Your task to perform on an android device: Search for sushi restaurants on Maps Image 0: 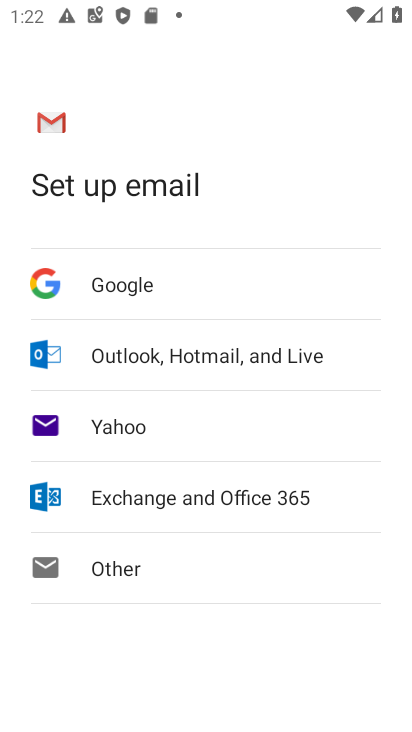
Step 0: press home button
Your task to perform on an android device: Search for sushi restaurants on Maps Image 1: 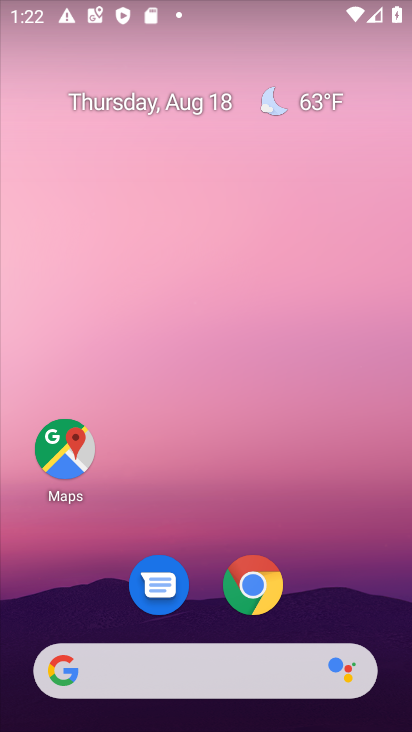
Step 1: click (56, 453)
Your task to perform on an android device: Search for sushi restaurants on Maps Image 2: 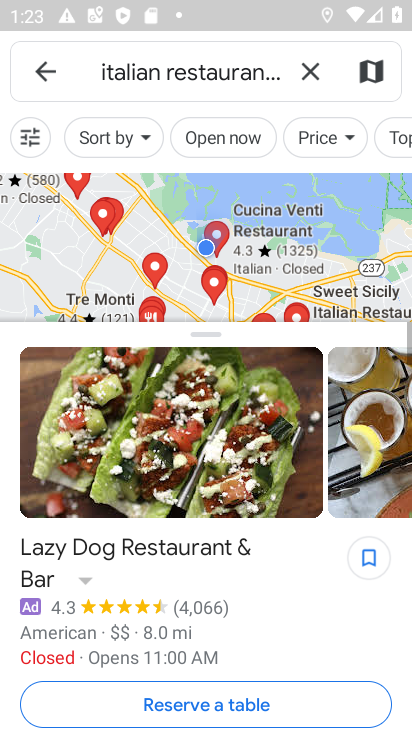
Step 2: click (45, 65)
Your task to perform on an android device: Search for sushi restaurants on Maps Image 3: 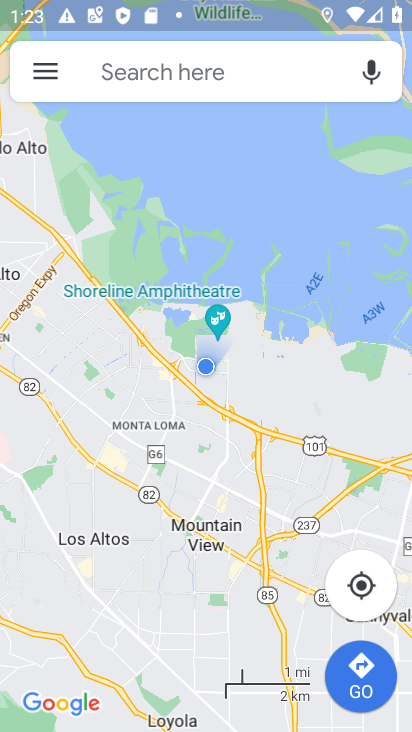
Step 3: click (162, 66)
Your task to perform on an android device: Search for sushi restaurants on Maps Image 4: 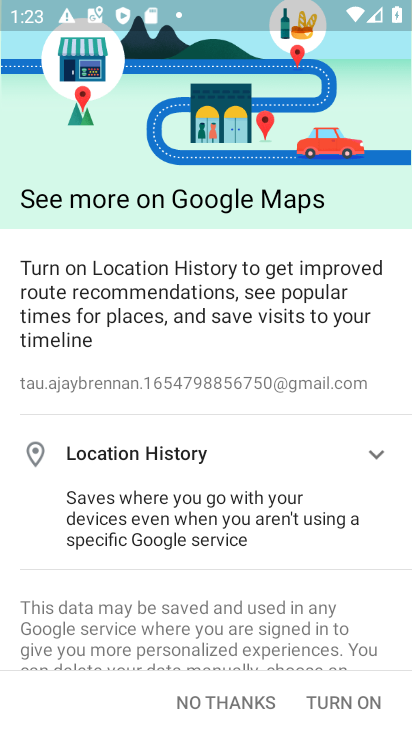
Step 4: click (335, 697)
Your task to perform on an android device: Search for sushi restaurants on Maps Image 5: 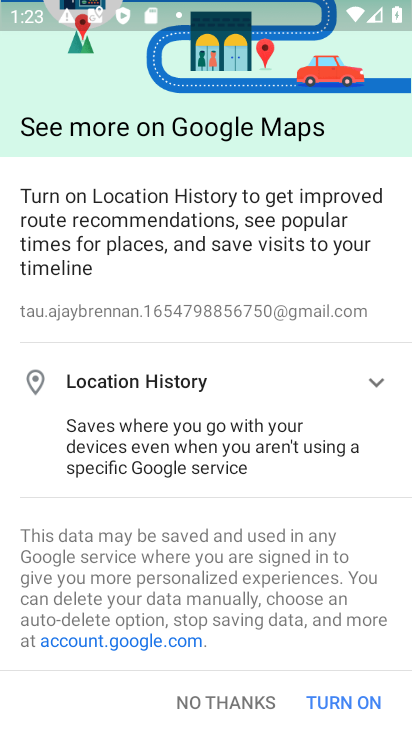
Step 5: click (337, 695)
Your task to perform on an android device: Search for sushi restaurants on Maps Image 6: 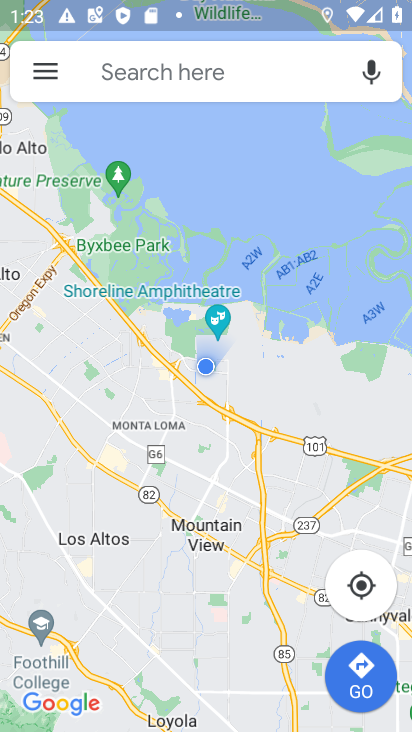
Step 6: click (173, 64)
Your task to perform on an android device: Search for sushi restaurants on Maps Image 7: 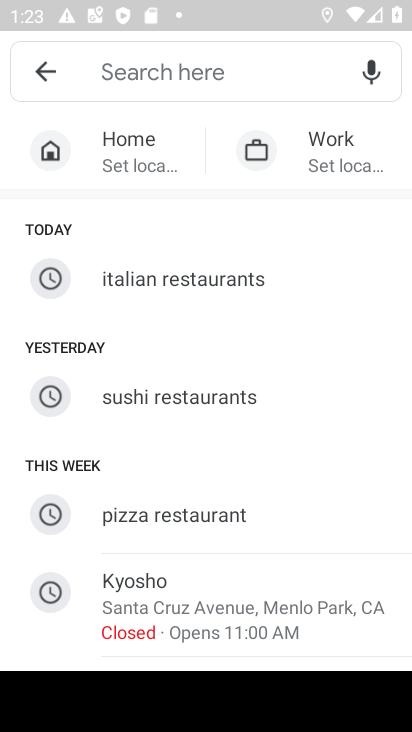
Step 7: click (199, 397)
Your task to perform on an android device: Search for sushi restaurants on Maps Image 8: 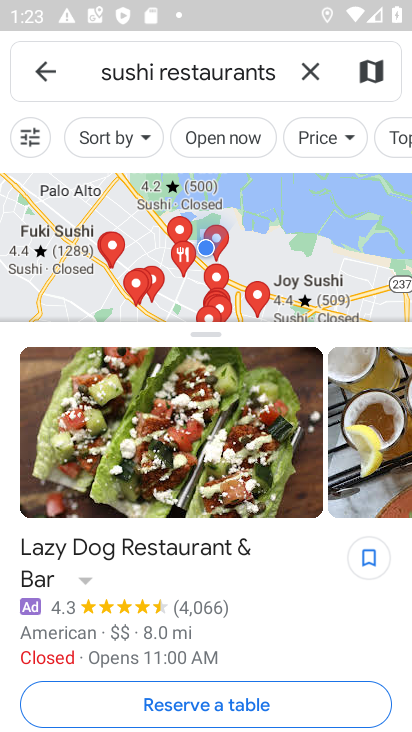
Step 8: task complete